Your task to perform on an android device: Open notification settings Image 0: 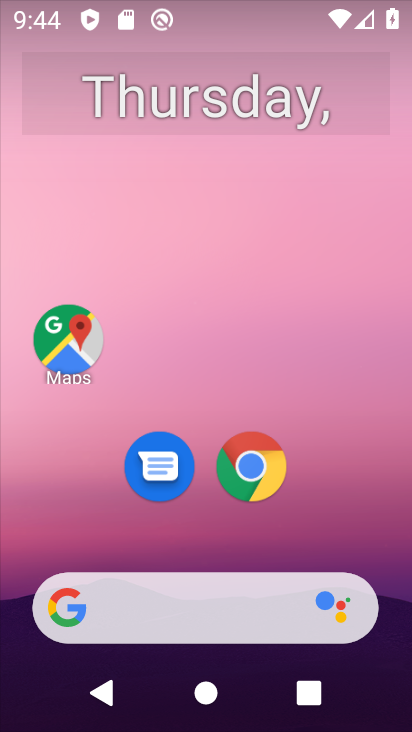
Step 0: drag from (186, 566) to (253, 146)
Your task to perform on an android device: Open notification settings Image 1: 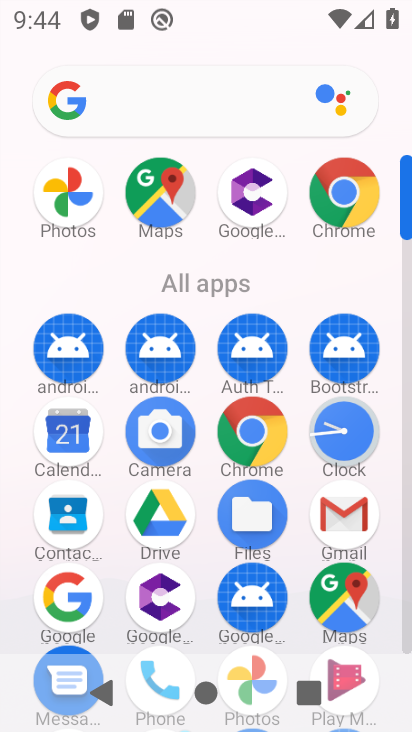
Step 1: drag from (243, 554) to (294, 181)
Your task to perform on an android device: Open notification settings Image 2: 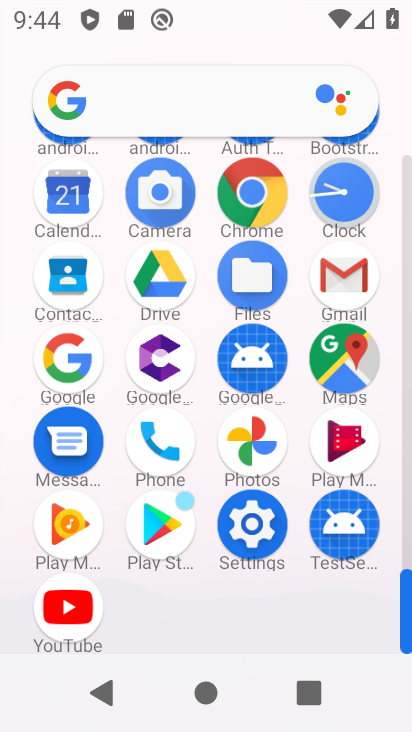
Step 2: click (258, 524)
Your task to perform on an android device: Open notification settings Image 3: 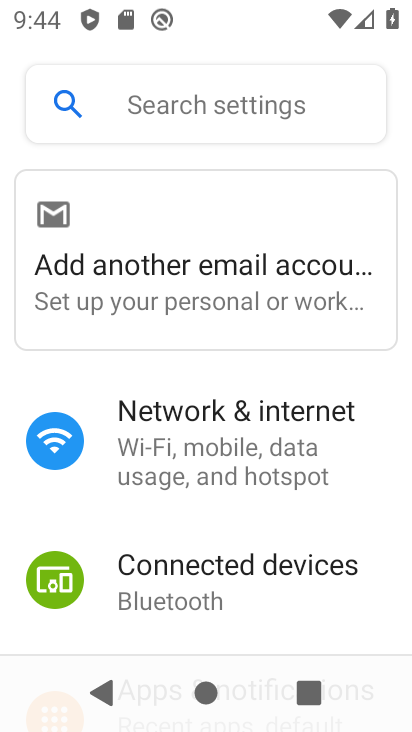
Step 3: drag from (240, 486) to (316, 151)
Your task to perform on an android device: Open notification settings Image 4: 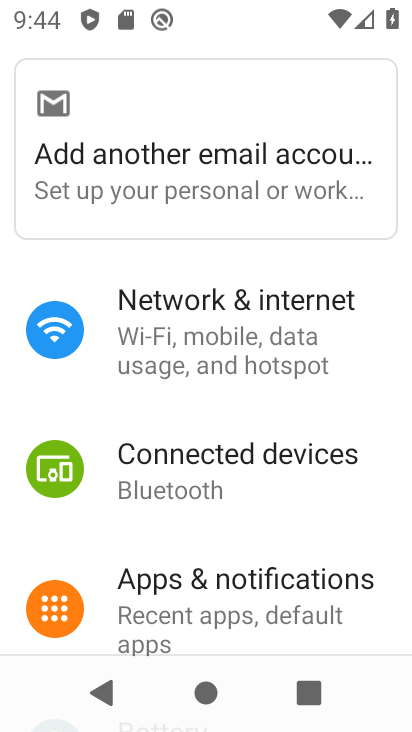
Step 4: click (215, 576)
Your task to perform on an android device: Open notification settings Image 5: 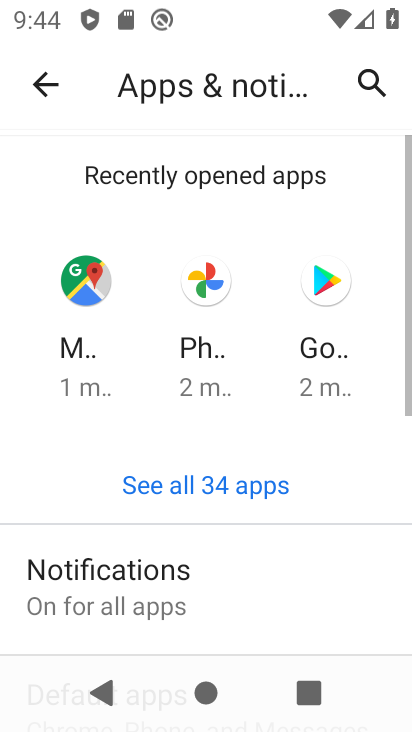
Step 5: task complete